Your task to perform on an android device: add a label to a message in the gmail app Image 0: 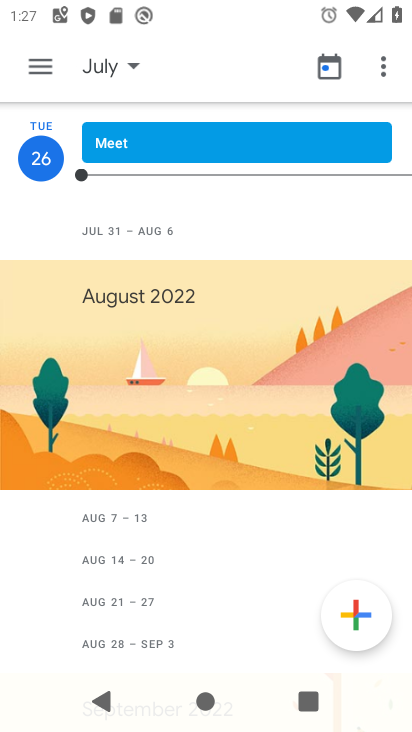
Step 0: press home button
Your task to perform on an android device: add a label to a message in the gmail app Image 1: 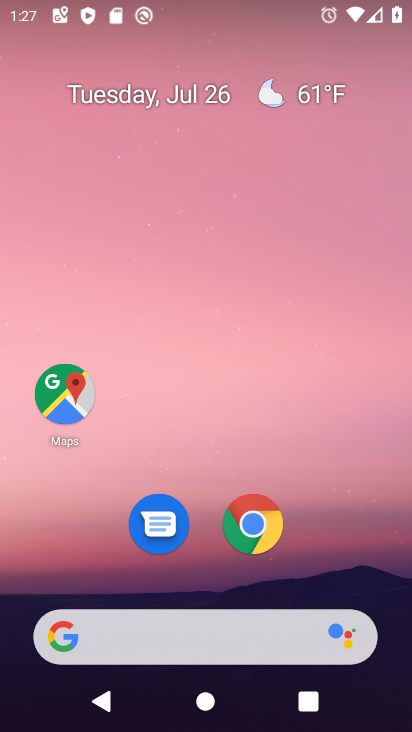
Step 1: drag from (223, 598) to (348, 131)
Your task to perform on an android device: add a label to a message in the gmail app Image 2: 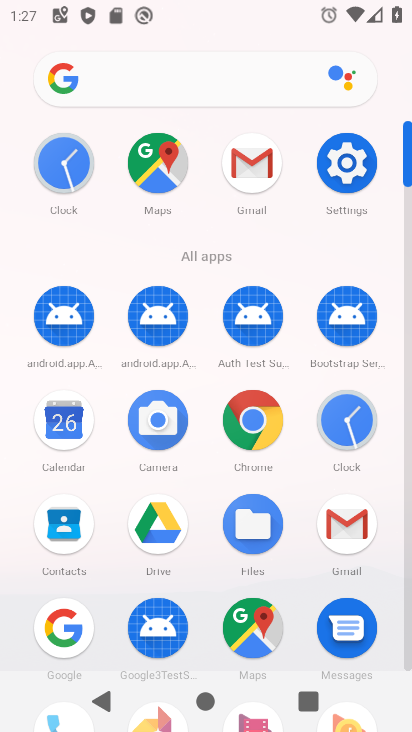
Step 2: click (254, 182)
Your task to perform on an android device: add a label to a message in the gmail app Image 3: 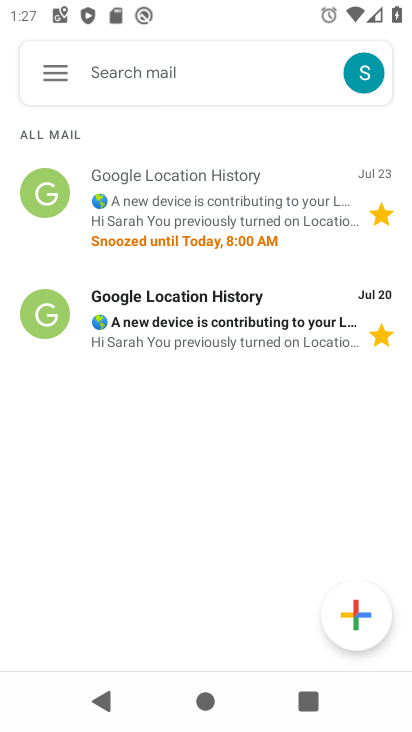
Step 3: click (221, 210)
Your task to perform on an android device: add a label to a message in the gmail app Image 4: 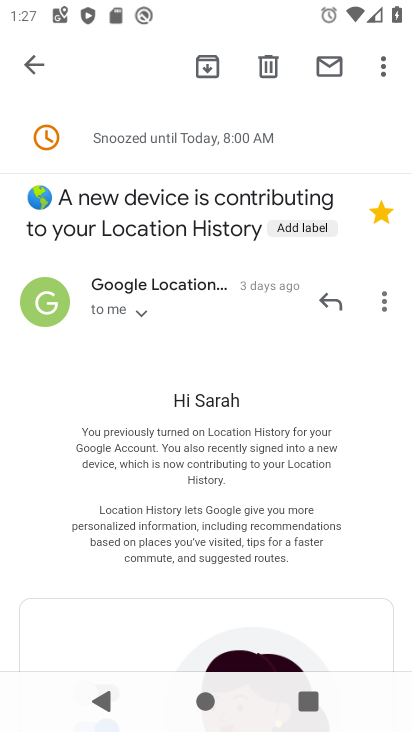
Step 4: click (382, 68)
Your task to perform on an android device: add a label to a message in the gmail app Image 5: 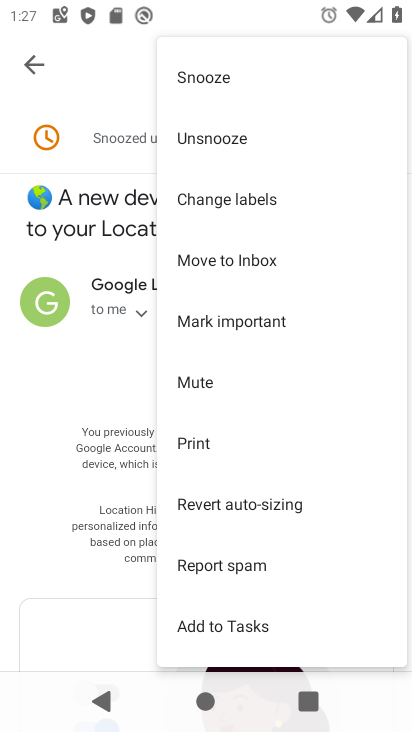
Step 5: click (33, 66)
Your task to perform on an android device: add a label to a message in the gmail app Image 6: 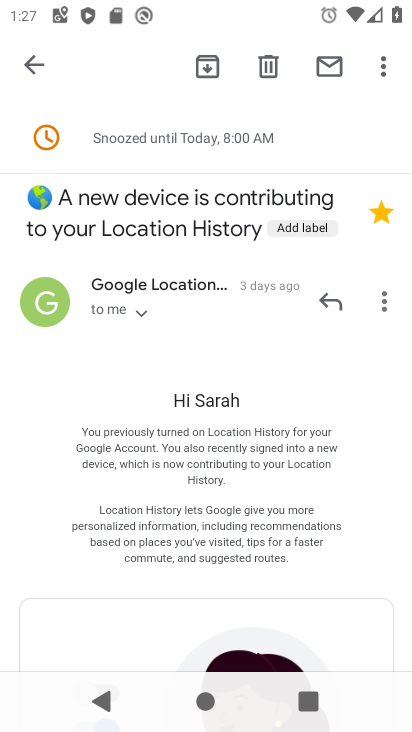
Step 6: click (308, 222)
Your task to perform on an android device: add a label to a message in the gmail app Image 7: 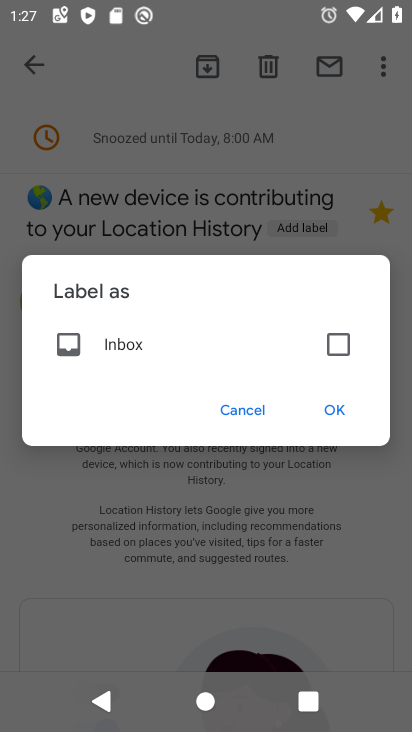
Step 7: click (332, 349)
Your task to perform on an android device: add a label to a message in the gmail app Image 8: 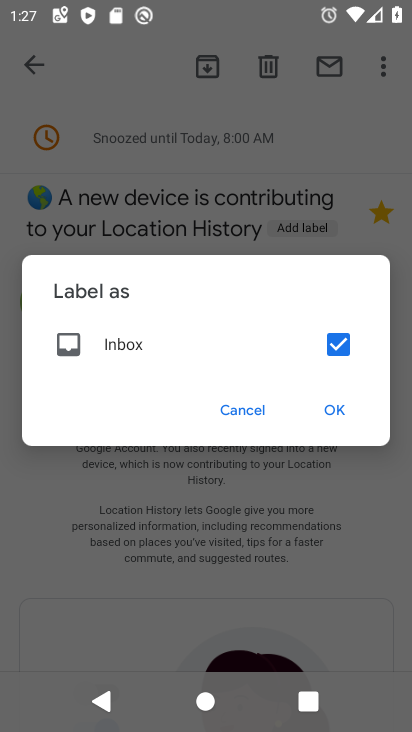
Step 8: click (333, 411)
Your task to perform on an android device: add a label to a message in the gmail app Image 9: 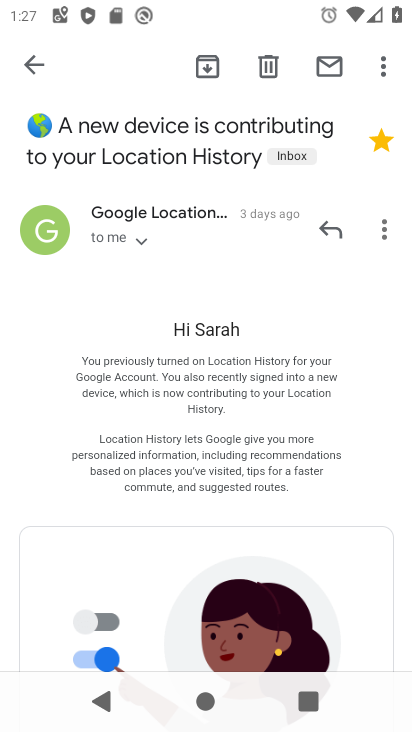
Step 9: task complete